Your task to perform on an android device: open a new tab in the chrome app Image 0: 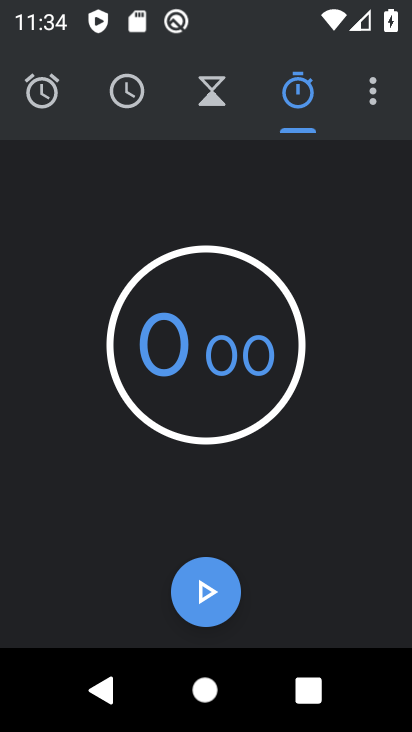
Step 0: press home button
Your task to perform on an android device: open a new tab in the chrome app Image 1: 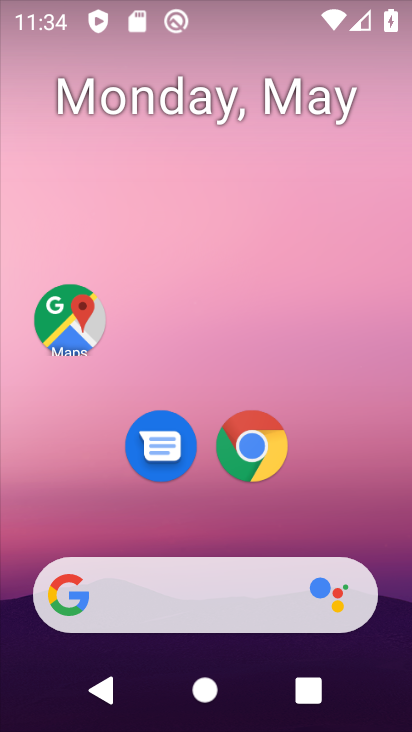
Step 1: click (253, 435)
Your task to perform on an android device: open a new tab in the chrome app Image 2: 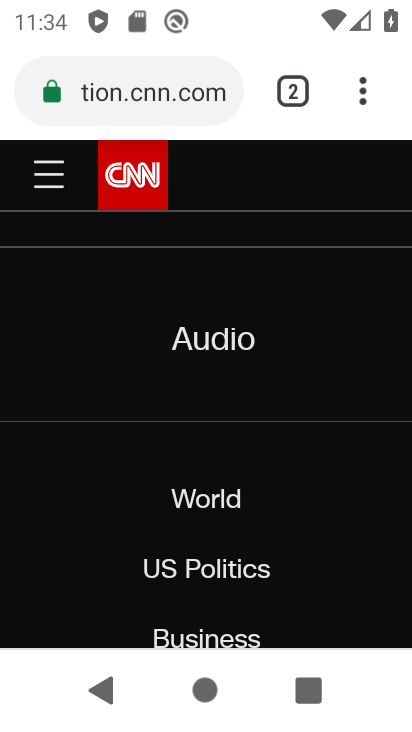
Step 2: click (362, 86)
Your task to perform on an android device: open a new tab in the chrome app Image 3: 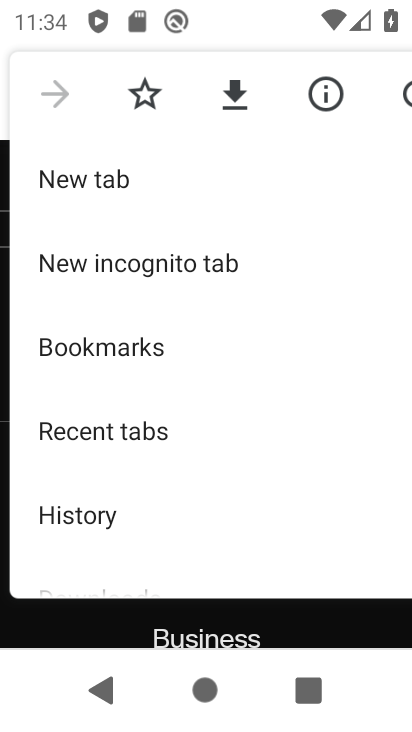
Step 3: click (97, 178)
Your task to perform on an android device: open a new tab in the chrome app Image 4: 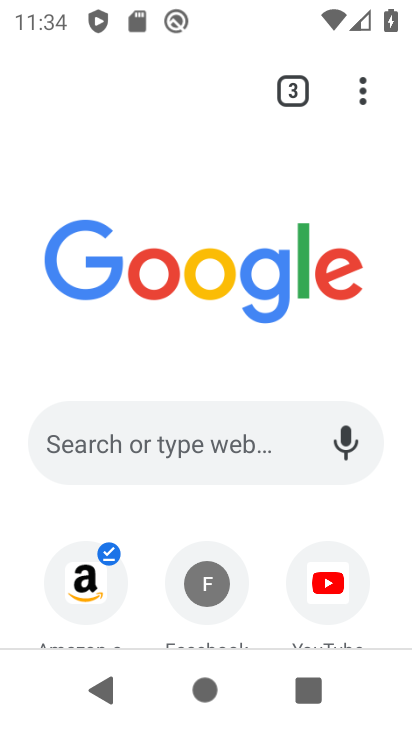
Step 4: task complete